Your task to perform on an android device: Open notification settings Image 0: 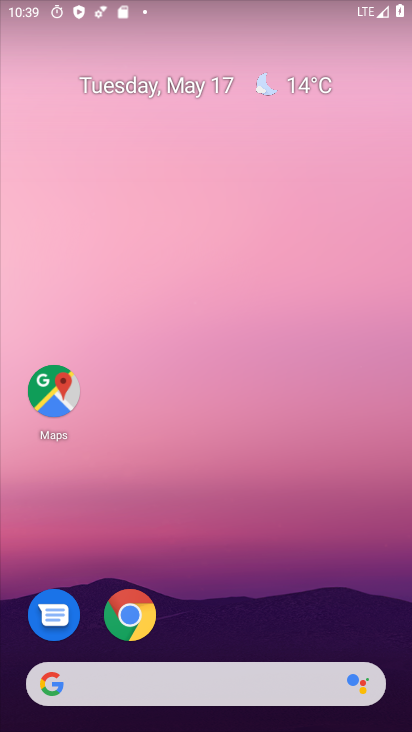
Step 0: press home button
Your task to perform on an android device: Open notification settings Image 1: 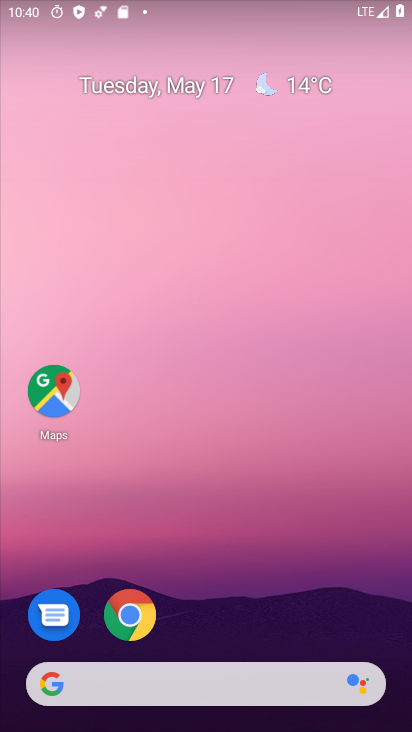
Step 1: drag from (137, 676) to (337, 186)
Your task to perform on an android device: Open notification settings Image 2: 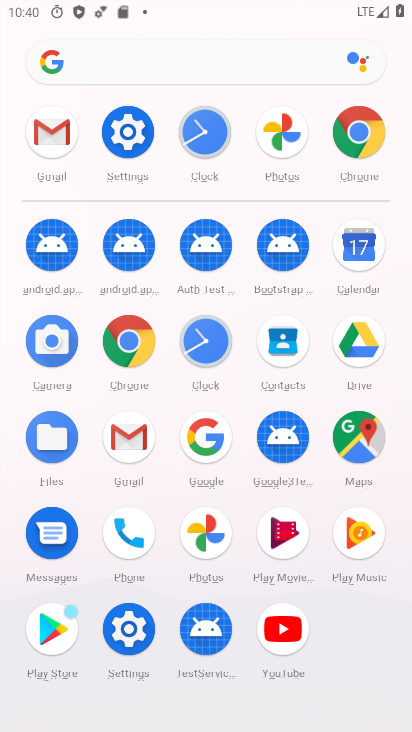
Step 2: click (135, 135)
Your task to perform on an android device: Open notification settings Image 3: 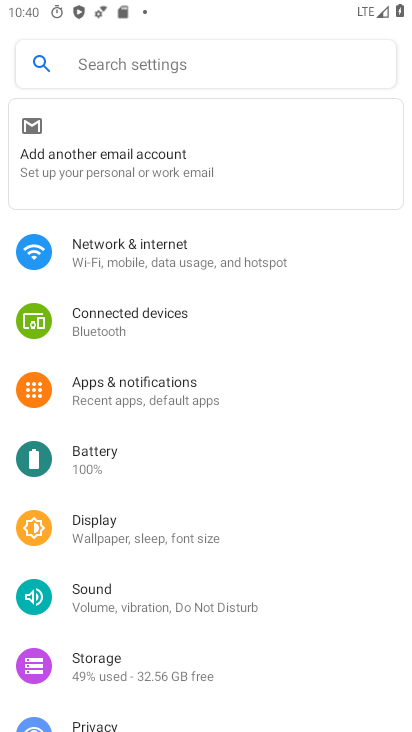
Step 3: click (177, 378)
Your task to perform on an android device: Open notification settings Image 4: 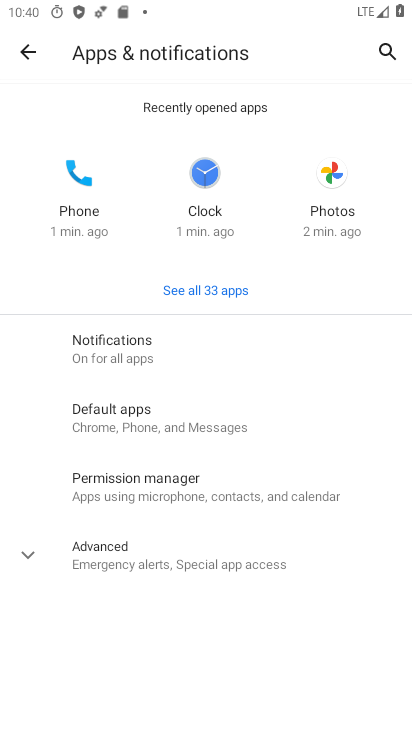
Step 4: click (144, 346)
Your task to perform on an android device: Open notification settings Image 5: 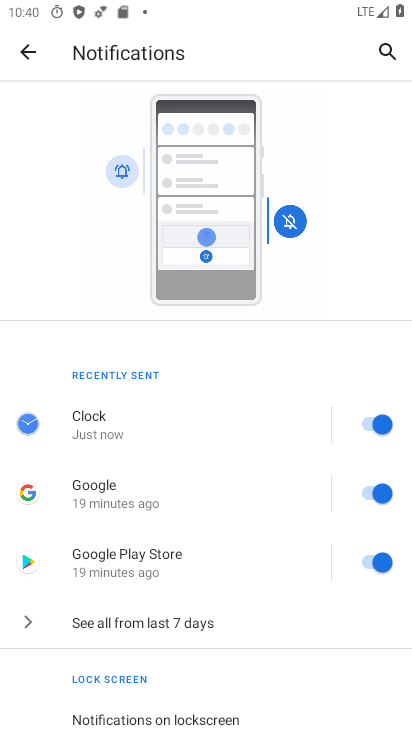
Step 5: task complete